Your task to perform on an android device: allow cookies in the chrome app Image 0: 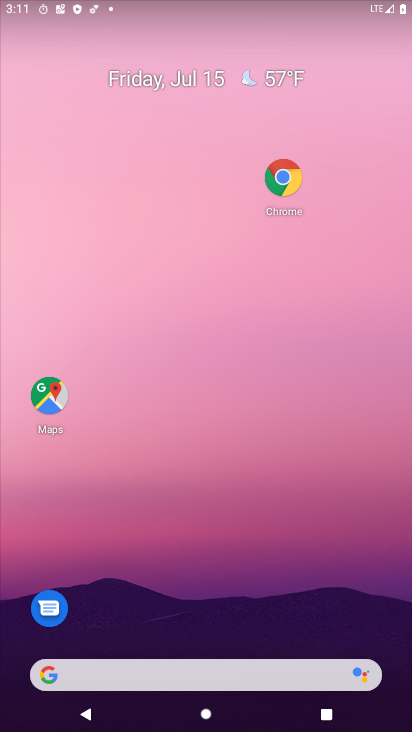
Step 0: drag from (288, 638) to (292, 86)
Your task to perform on an android device: allow cookies in the chrome app Image 1: 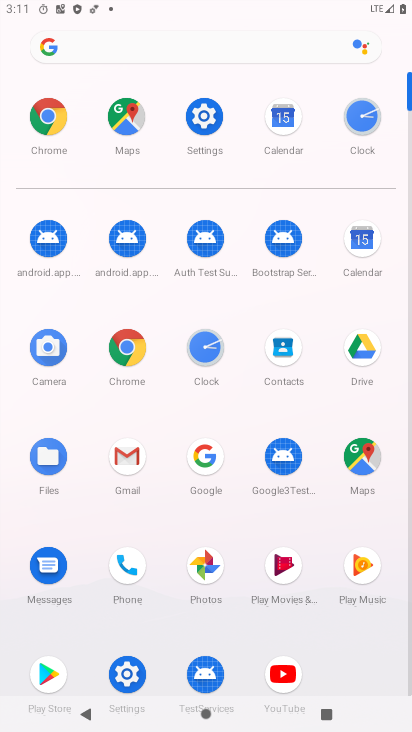
Step 1: click (128, 348)
Your task to perform on an android device: allow cookies in the chrome app Image 2: 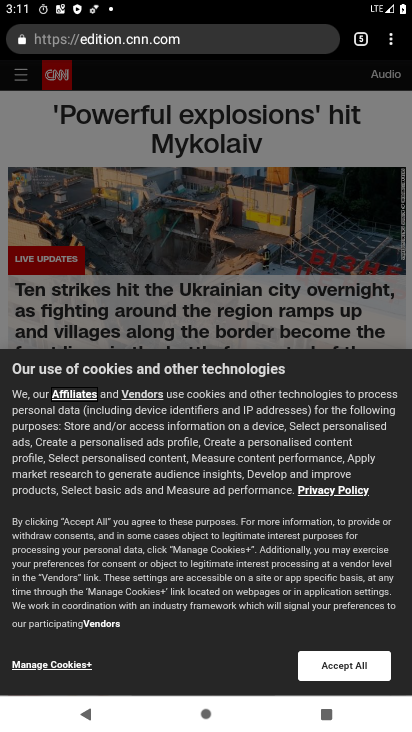
Step 2: click (386, 33)
Your task to perform on an android device: allow cookies in the chrome app Image 3: 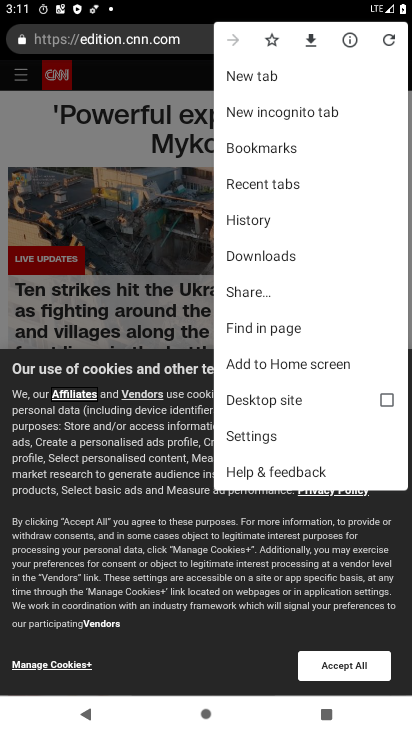
Step 3: click (251, 430)
Your task to perform on an android device: allow cookies in the chrome app Image 4: 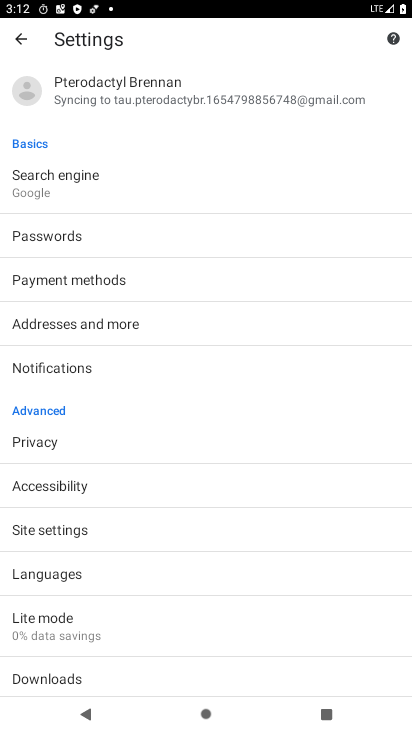
Step 4: click (67, 540)
Your task to perform on an android device: allow cookies in the chrome app Image 5: 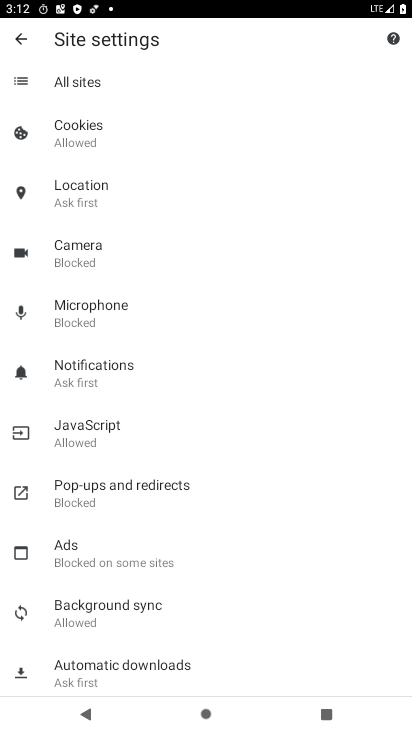
Step 5: click (140, 117)
Your task to perform on an android device: allow cookies in the chrome app Image 6: 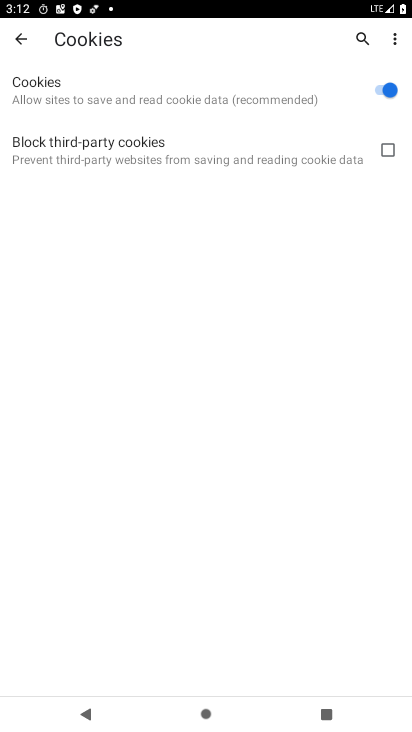
Step 6: task complete